Your task to perform on an android device: Open sound settings Image 0: 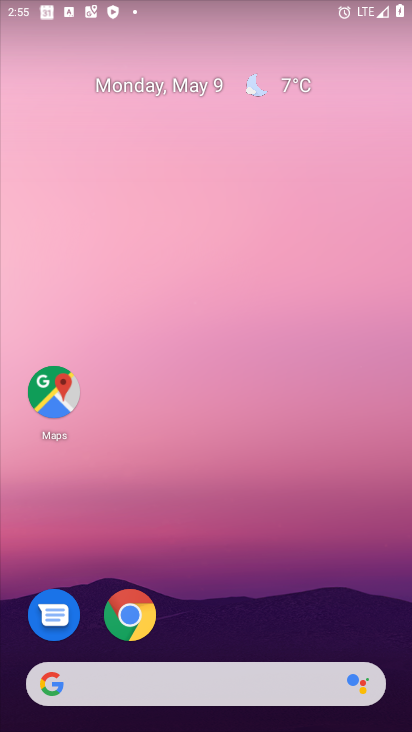
Step 0: drag from (401, 680) to (354, 113)
Your task to perform on an android device: Open sound settings Image 1: 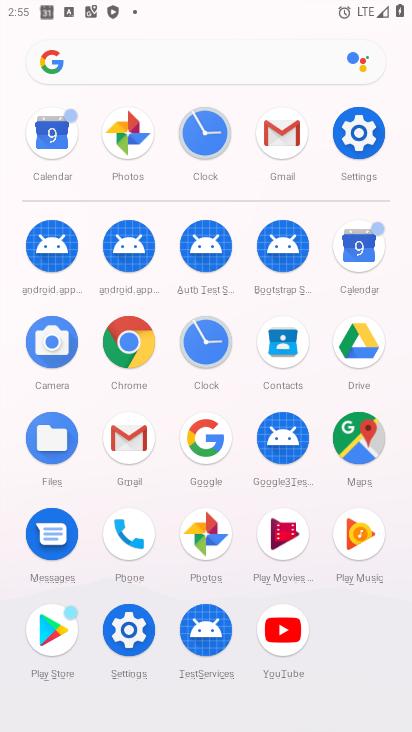
Step 1: click (128, 630)
Your task to perform on an android device: Open sound settings Image 2: 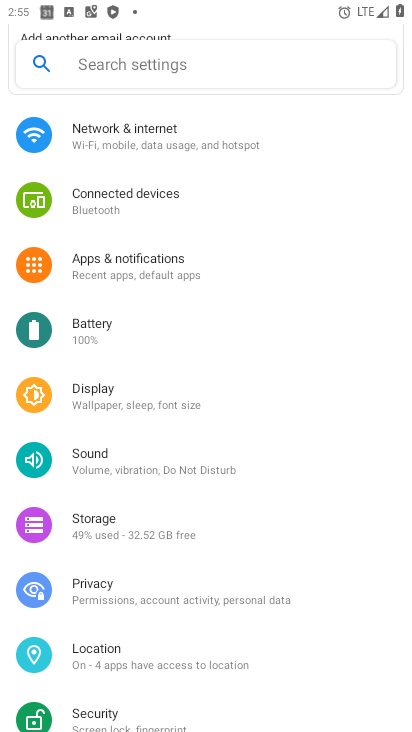
Step 2: click (94, 458)
Your task to perform on an android device: Open sound settings Image 3: 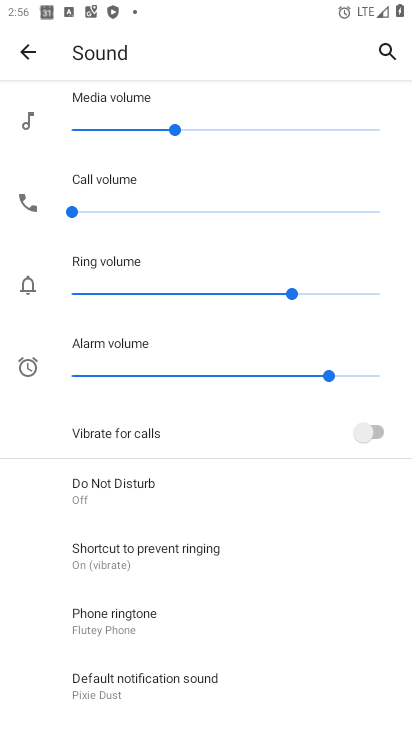
Step 3: drag from (232, 629) to (299, 226)
Your task to perform on an android device: Open sound settings Image 4: 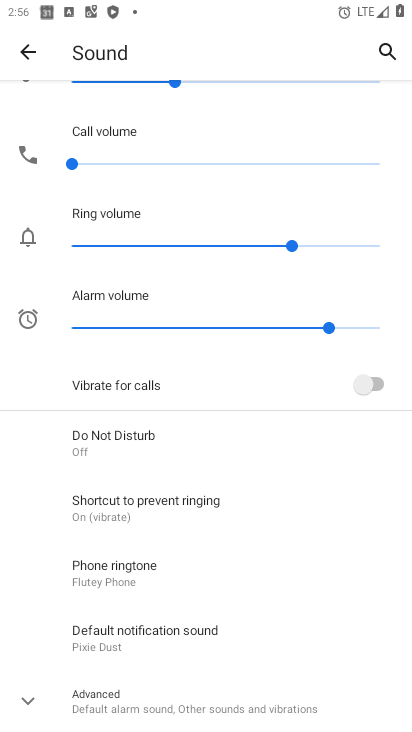
Step 4: click (27, 701)
Your task to perform on an android device: Open sound settings Image 5: 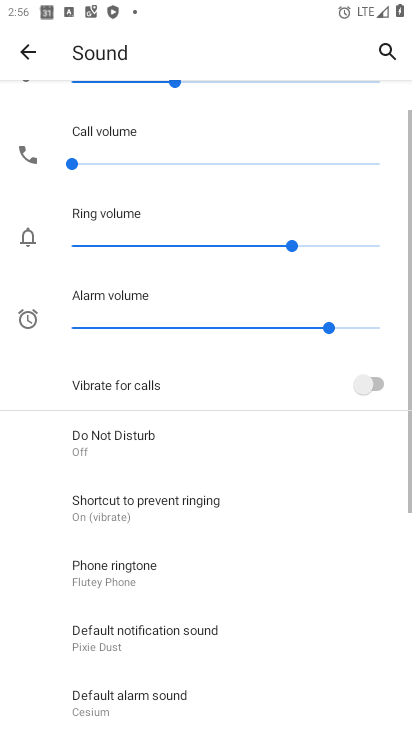
Step 5: task complete